Your task to perform on an android device: Go to eBay Image 0: 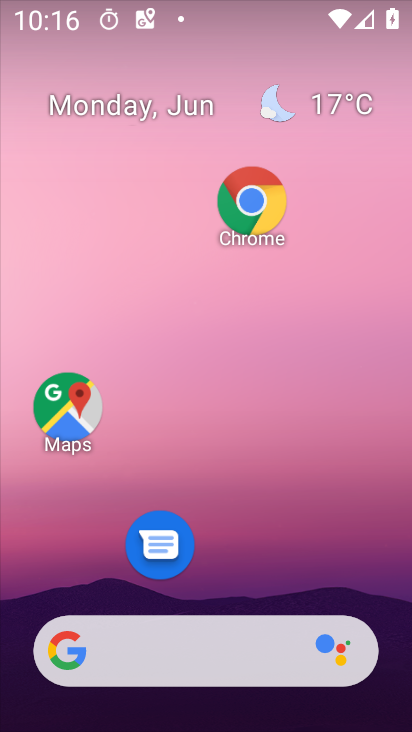
Step 0: drag from (224, 595) to (149, 57)
Your task to perform on an android device: Go to eBay Image 1: 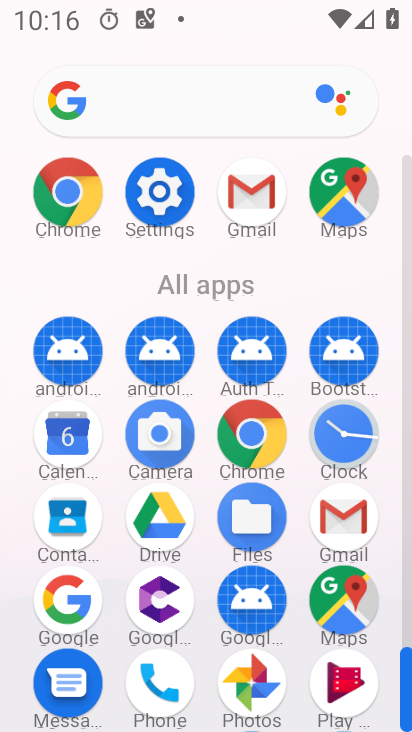
Step 1: click (73, 210)
Your task to perform on an android device: Go to eBay Image 2: 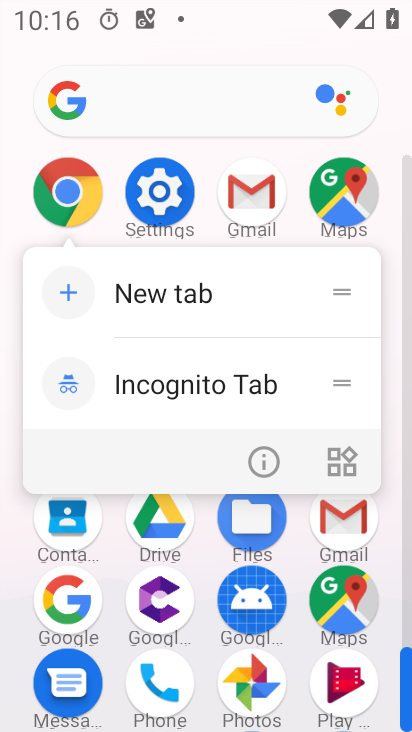
Step 2: click (73, 210)
Your task to perform on an android device: Go to eBay Image 3: 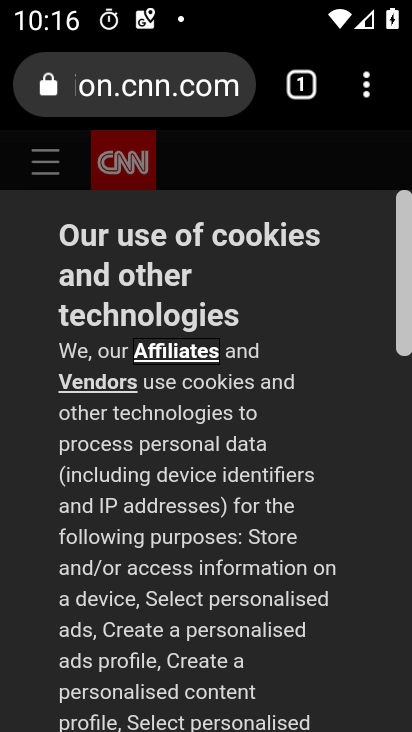
Step 3: click (292, 79)
Your task to perform on an android device: Go to eBay Image 4: 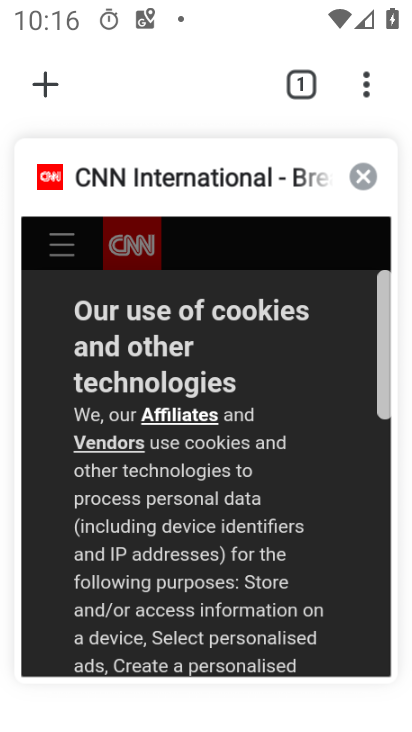
Step 4: click (49, 86)
Your task to perform on an android device: Go to eBay Image 5: 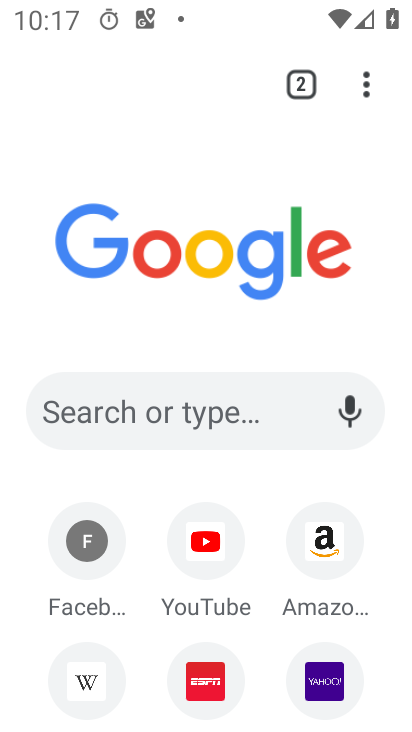
Step 5: click (188, 398)
Your task to perform on an android device: Go to eBay Image 6: 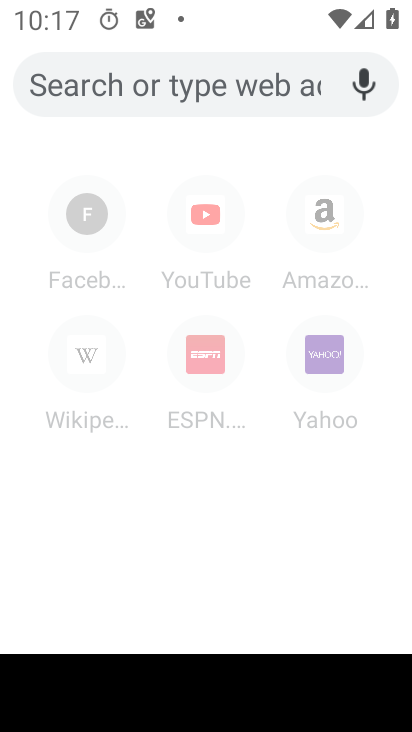
Step 6: type "ebay"
Your task to perform on an android device: Go to eBay Image 7: 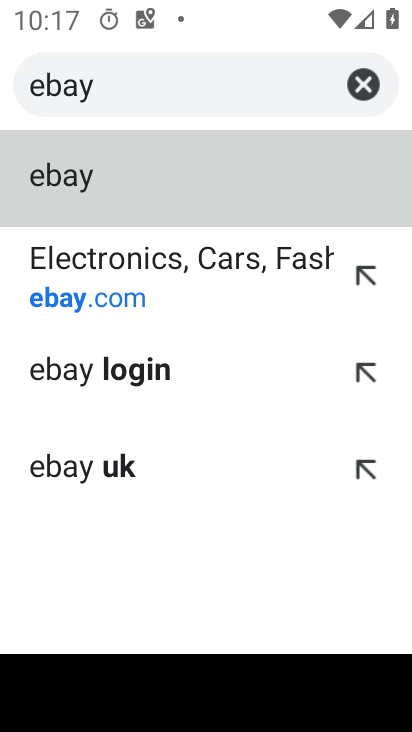
Step 7: click (180, 271)
Your task to perform on an android device: Go to eBay Image 8: 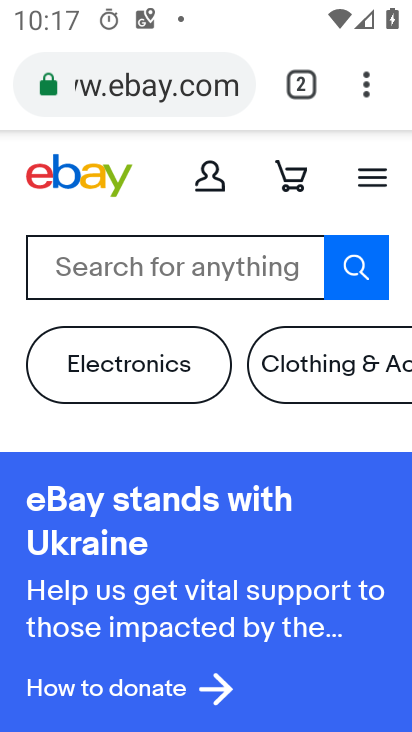
Step 8: task complete